Your task to perform on an android device: visit the assistant section in the google photos Image 0: 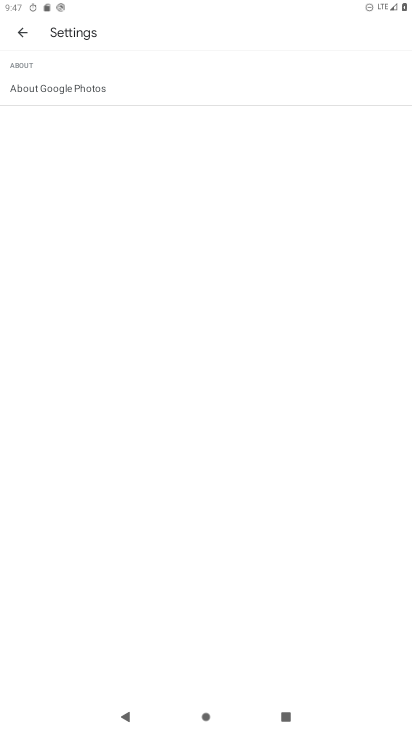
Step 0: press home button
Your task to perform on an android device: visit the assistant section in the google photos Image 1: 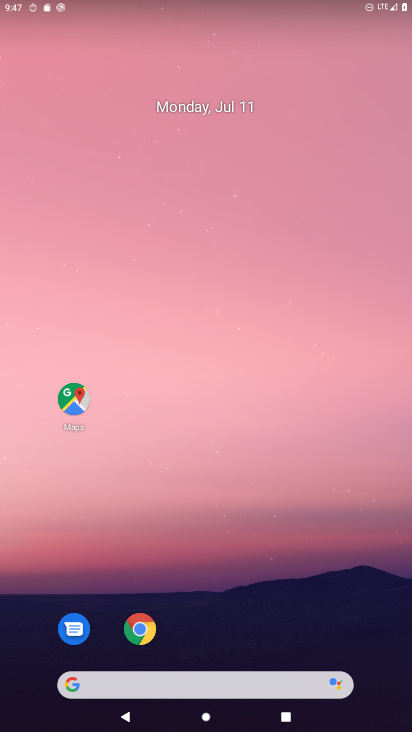
Step 1: drag from (190, 618) to (209, 64)
Your task to perform on an android device: visit the assistant section in the google photos Image 2: 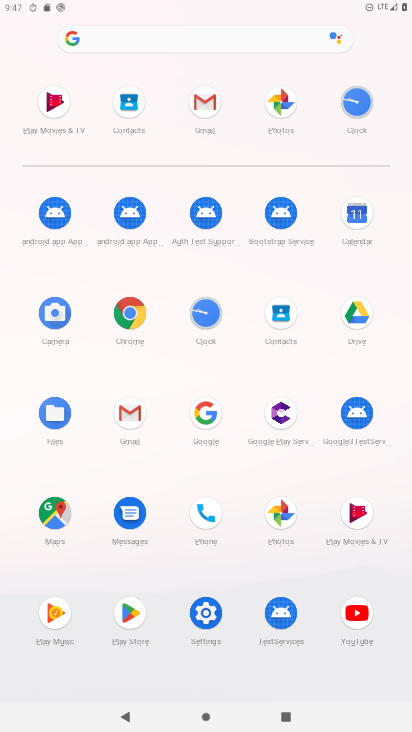
Step 2: click (287, 104)
Your task to perform on an android device: visit the assistant section in the google photos Image 3: 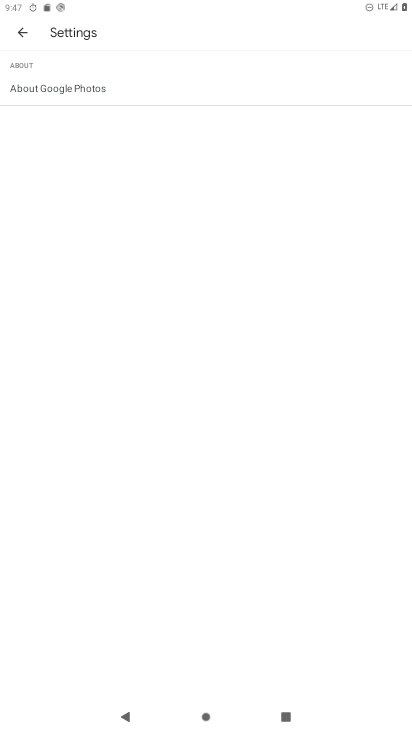
Step 3: click (31, 29)
Your task to perform on an android device: visit the assistant section in the google photos Image 4: 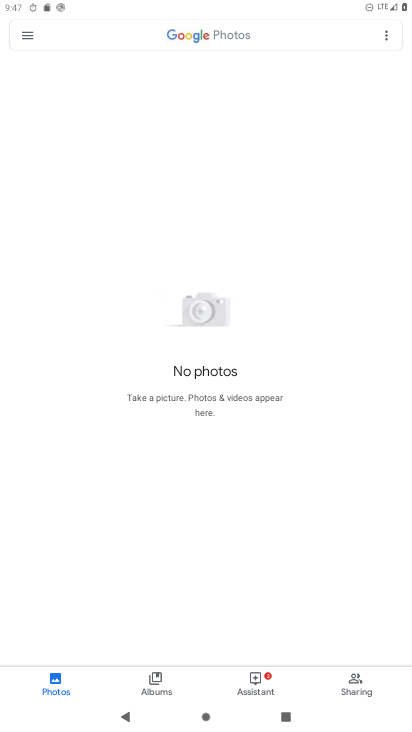
Step 4: click (244, 679)
Your task to perform on an android device: visit the assistant section in the google photos Image 5: 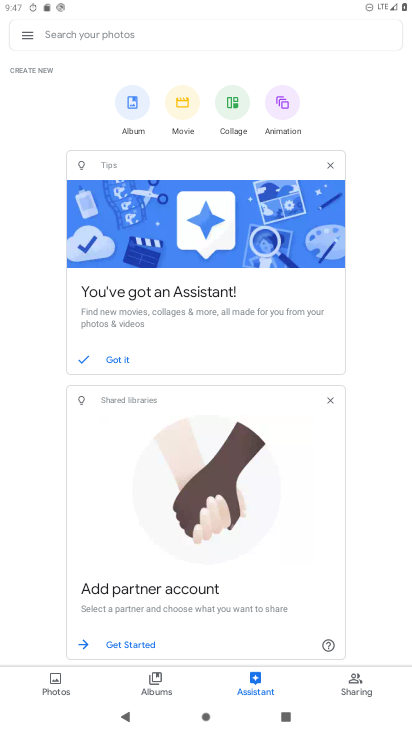
Step 5: task complete